Your task to perform on an android device: see sites visited before in the chrome app Image 0: 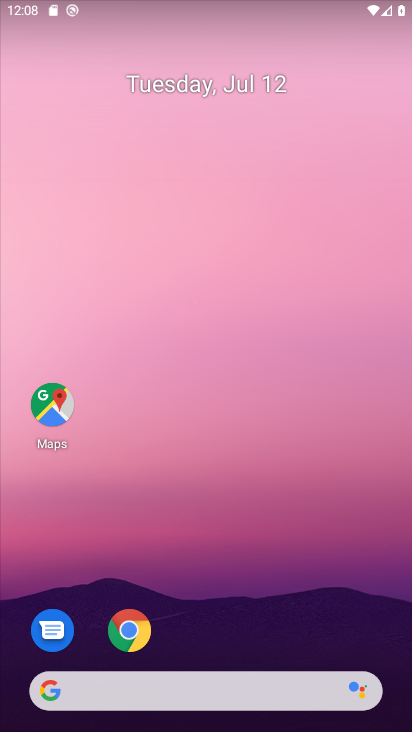
Step 0: click (138, 629)
Your task to perform on an android device: see sites visited before in the chrome app Image 1: 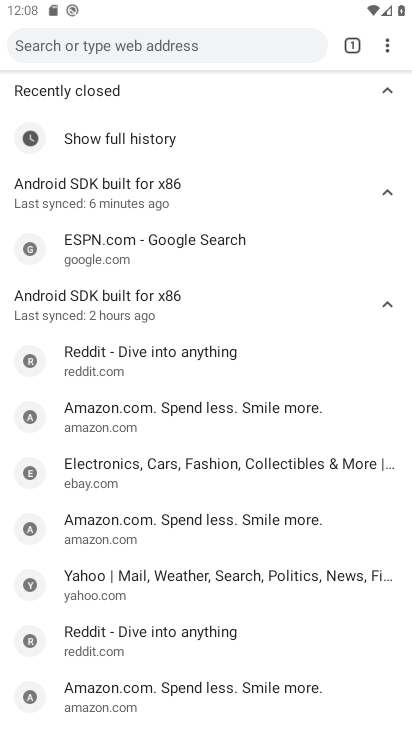
Step 1: click (391, 42)
Your task to perform on an android device: see sites visited before in the chrome app Image 2: 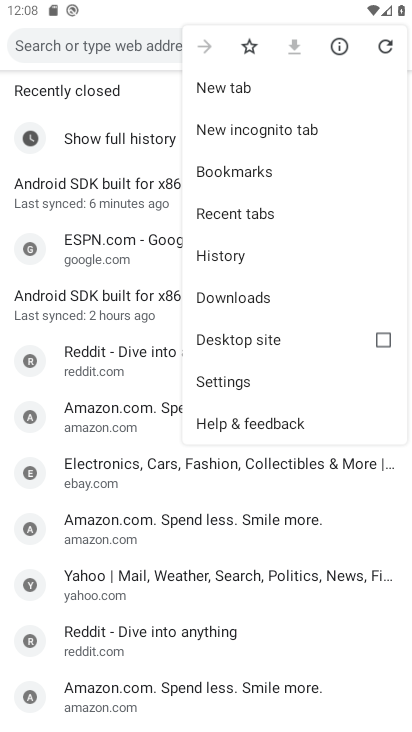
Step 2: click (228, 262)
Your task to perform on an android device: see sites visited before in the chrome app Image 3: 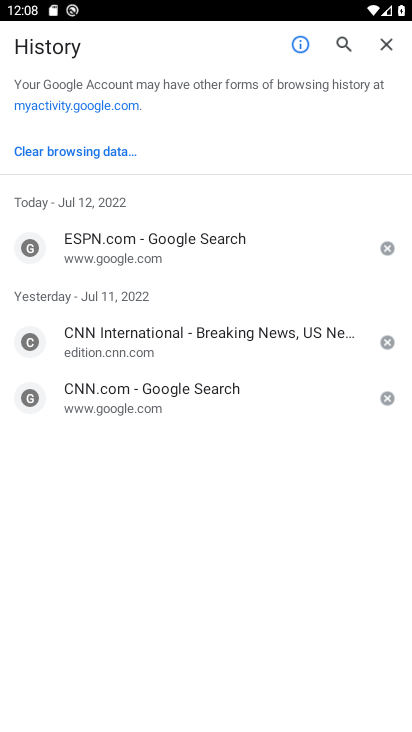
Step 3: task complete